Your task to perform on an android device: Open privacy settings Image 0: 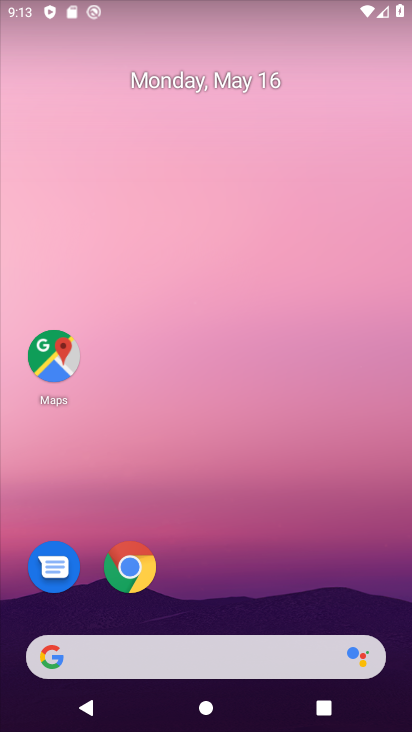
Step 0: drag from (255, 601) to (281, 241)
Your task to perform on an android device: Open privacy settings Image 1: 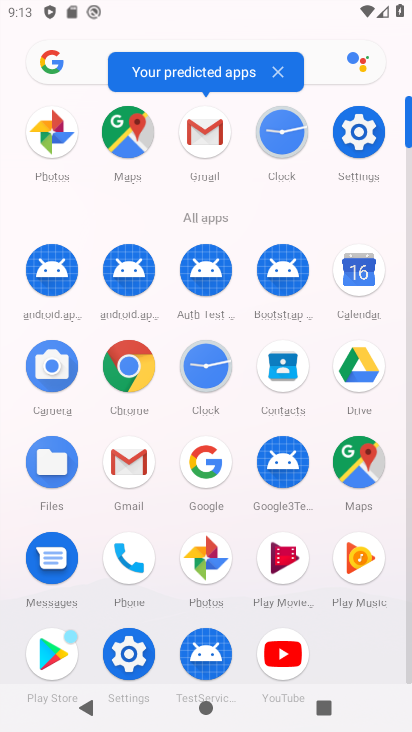
Step 1: click (354, 128)
Your task to perform on an android device: Open privacy settings Image 2: 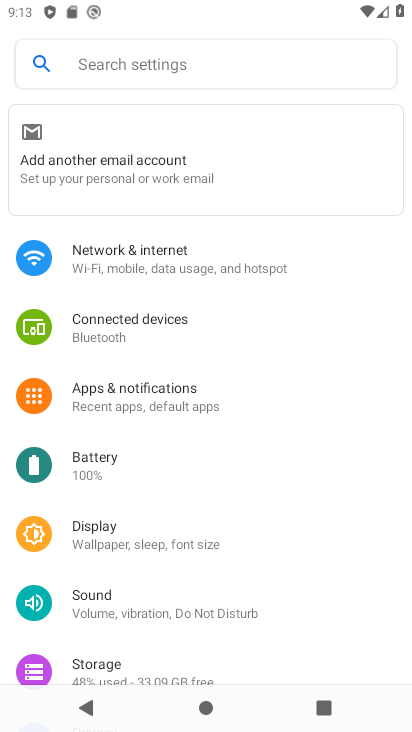
Step 2: drag from (154, 607) to (240, 217)
Your task to perform on an android device: Open privacy settings Image 3: 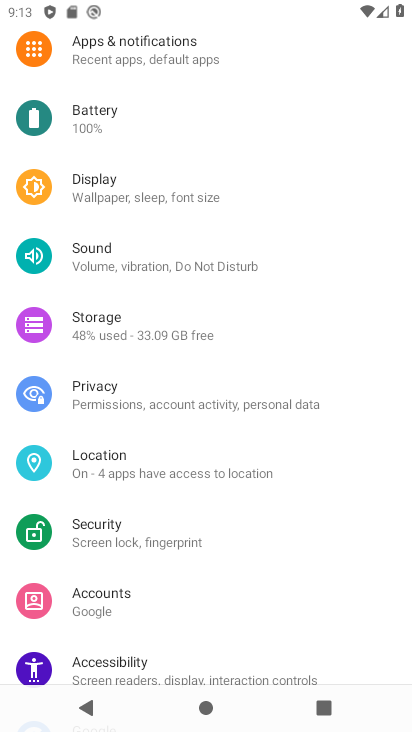
Step 3: click (142, 394)
Your task to perform on an android device: Open privacy settings Image 4: 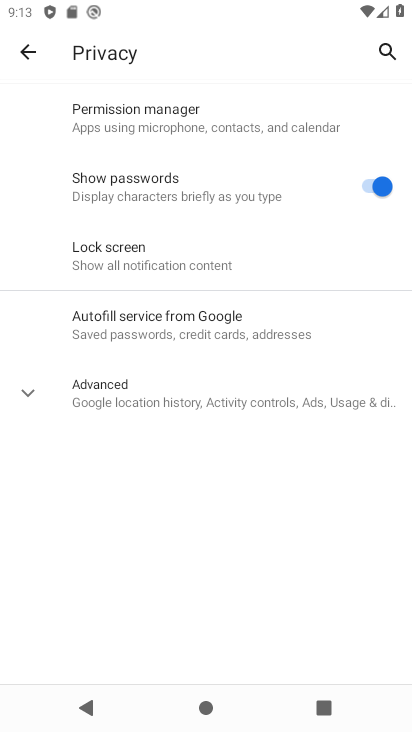
Step 4: task complete